Your task to perform on an android device: change your default location settings in chrome Image 0: 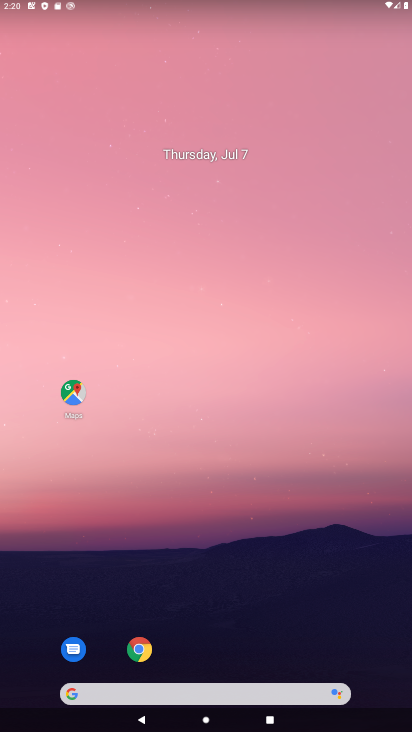
Step 0: drag from (338, 642) to (276, 117)
Your task to perform on an android device: change your default location settings in chrome Image 1: 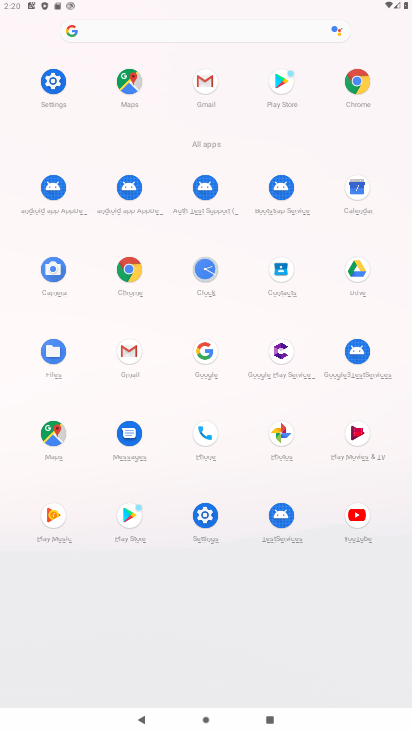
Step 1: click (128, 275)
Your task to perform on an android device: change your default location settings in chrome Image 2: 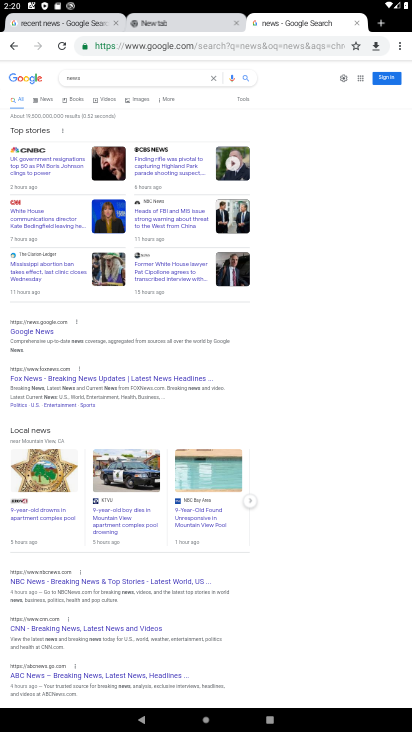
Step 2: drag from (397, 44) to (329, 281)
Your task to perform on an android device: change your default location settings in chrome Image 3: 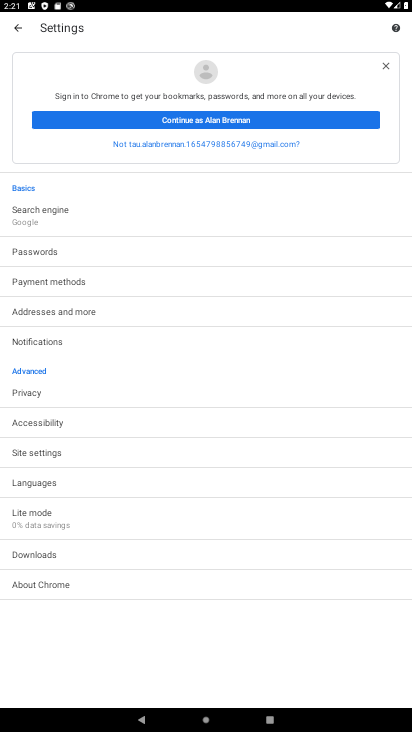
Step 3: click (71, 452)
Your task to perform on an android device: change your default location settings in chrome Image 4: 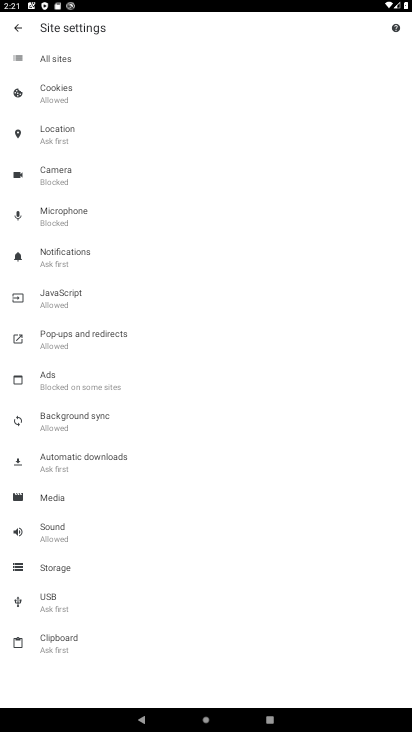
Step 4: click (62, 134)
Your task to perform on an android device: change your default location settings in chrome Image 5: 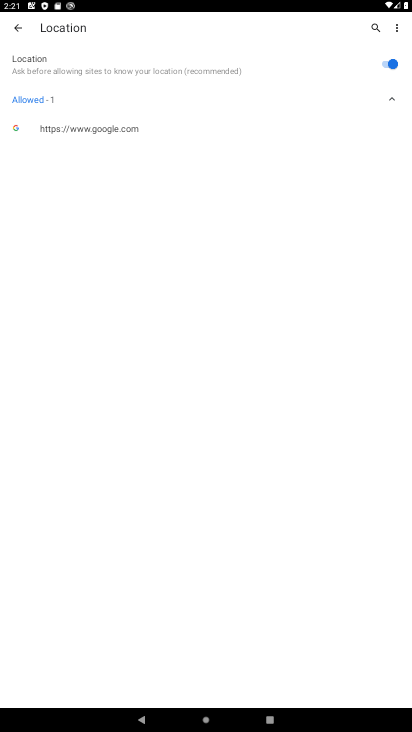
Step 5: click (124, 129)
Your task to perform on an android device: change your default location settings in chrome Image 6: 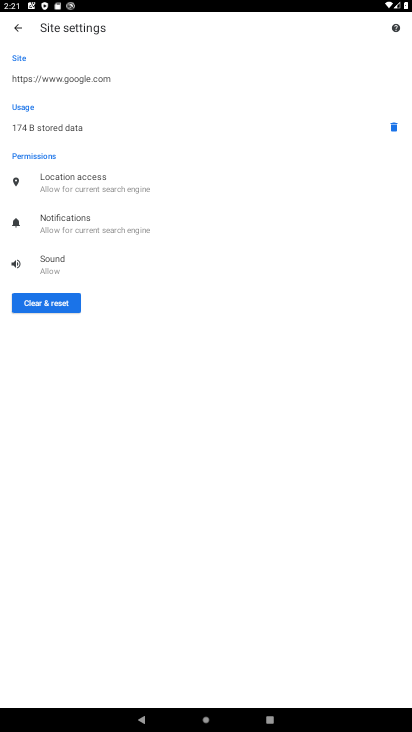
Step 6: click (97, 183)
Your task to perform on an android device: change your default location settings in chrome Image 7: 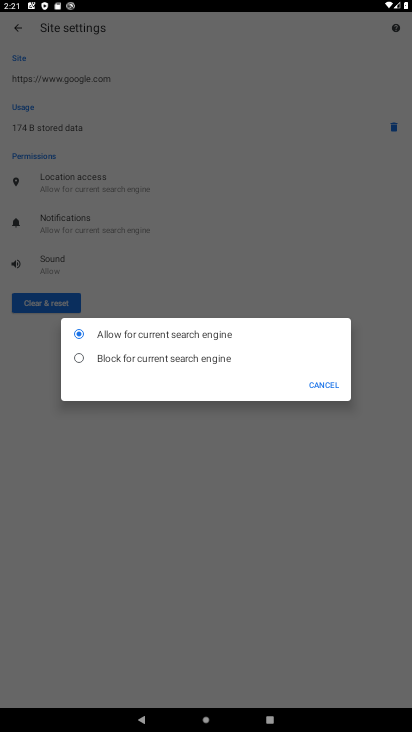
Step 7: click (322, 378)
Your task to perform on an android device: change your default location settings in chrome Image 8: 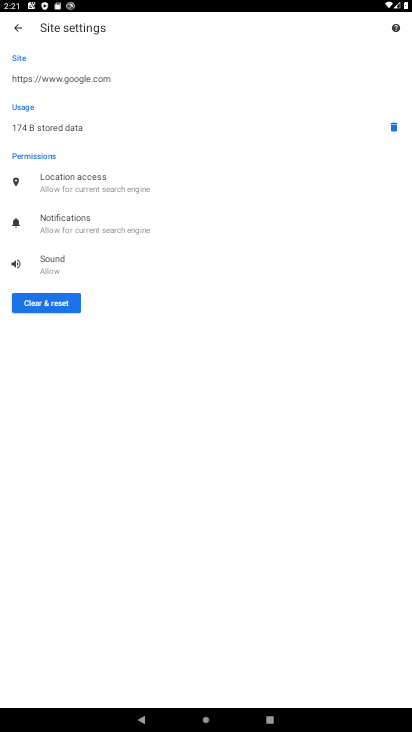
Step 8: task complete